Your task to perform on an android device: toggle wifi Image 0: 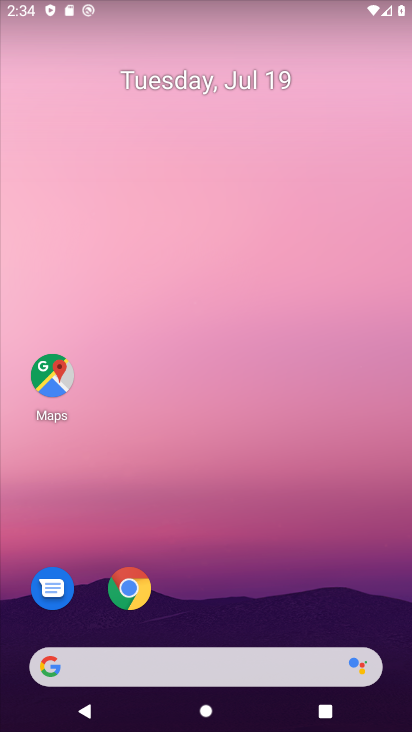
Step 0: drag from (174, 586) to (174, 112)
Your task to perform on an android device: toggle wifi Image 1: 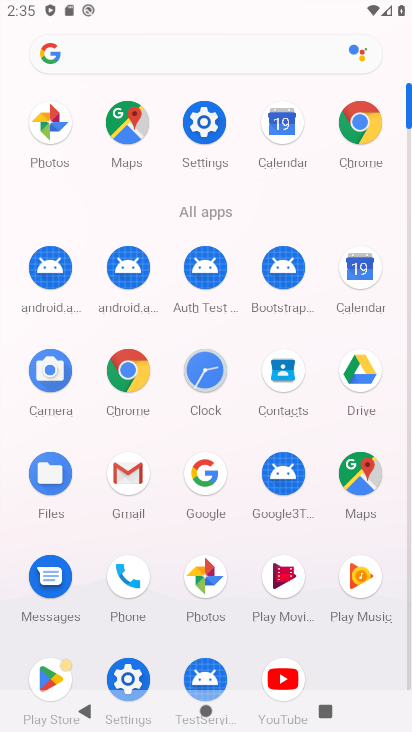
Step 1: click (196, 127)
Your task to perform on an android device: toggle wifi Image 2: 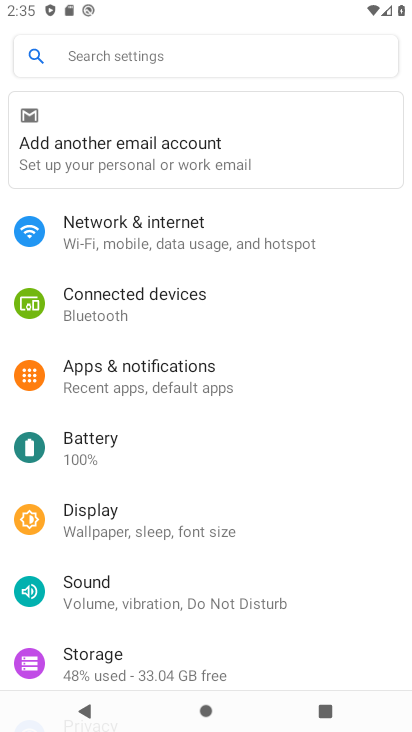
Step 2: click (160, 221)
Your task to perform on an android device: toggle wifi Image 3: 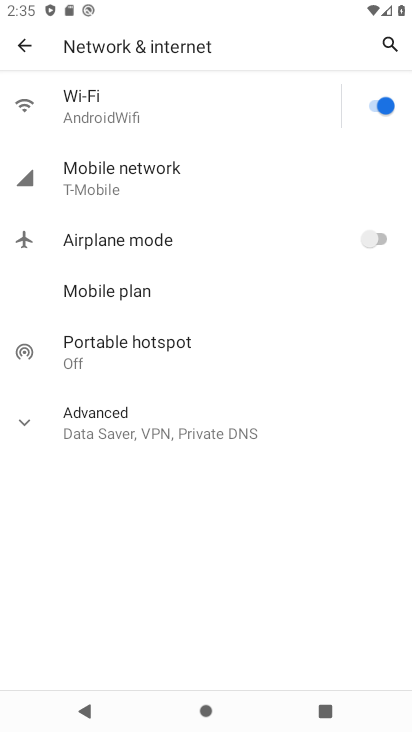
Step 3: click (384, 106)
Your task to perform on an android device: toggle wifi Image 4: 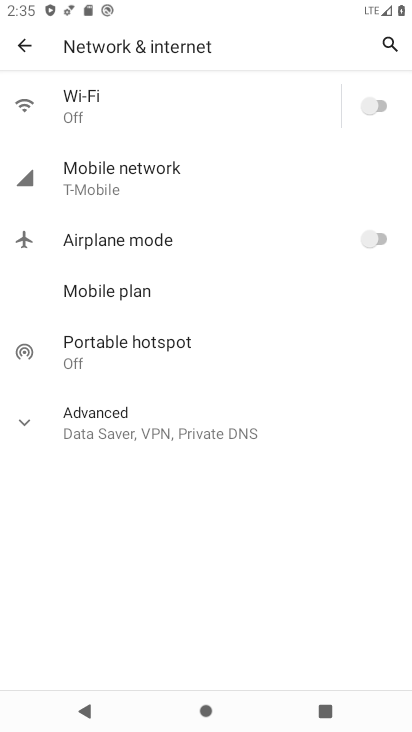
Step 4: task complete